Your task to perform on an android device: Go to notification settings Image 0: 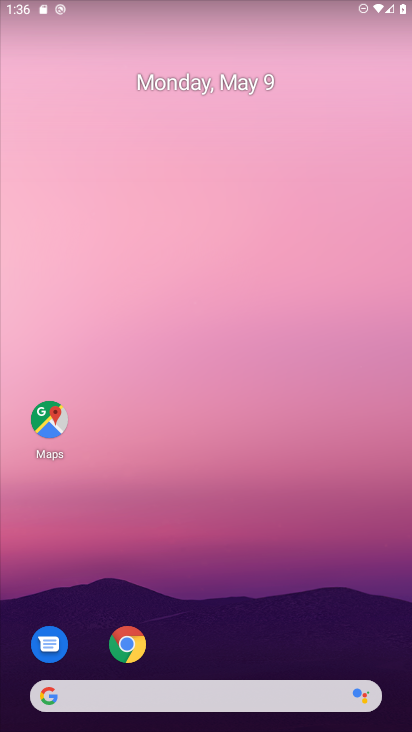
Step 0: drag from (296, 587) to (241, 181)
Your task to perform on an android device: Go to notification settings Image 1: 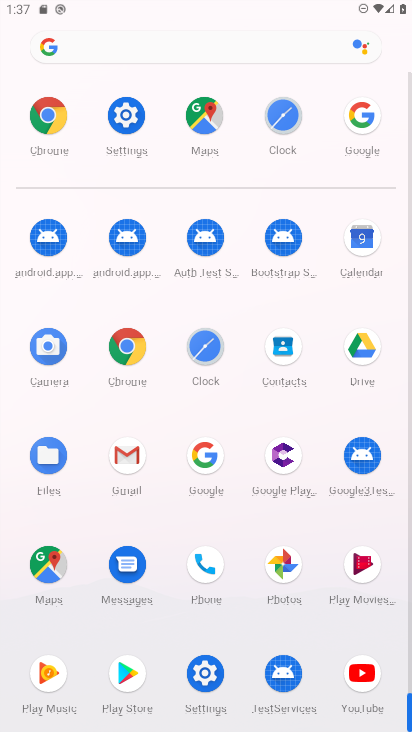
Step 1: click (200, 679)
Your task to perform on an android device: Go to notification settings Image 2: 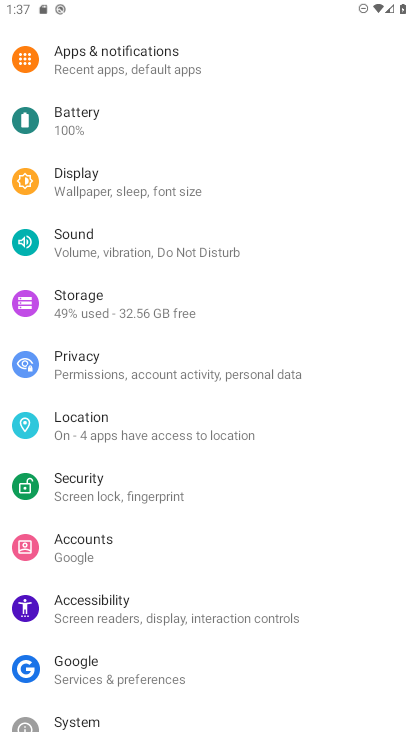
Step 2: click (168, 68)
Your task to perform on an android device: Go to notification settings Image 3: 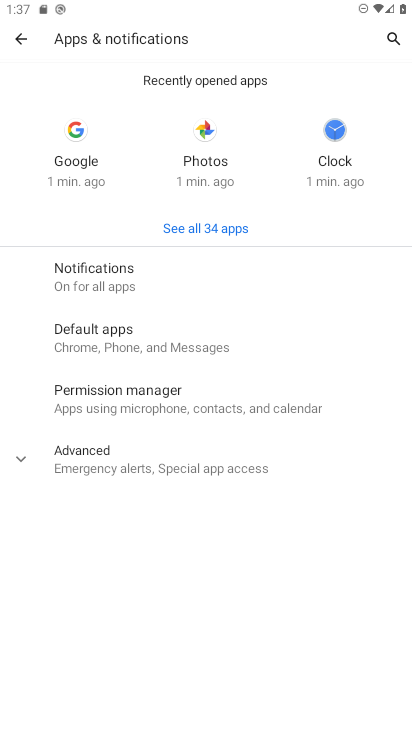
Step 3: click (90, 288)
Your task to perform on an android device: Go to notification settings Image 4: 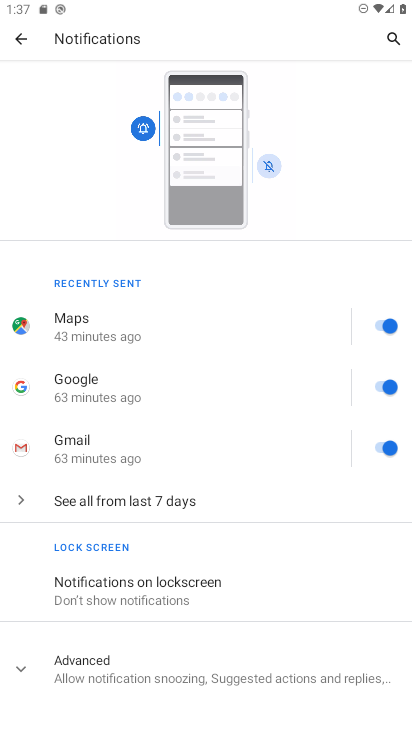
Step 4: drag from (132, 647) to (110, 530)
Your task to perform on an android device: Go to notification settings Image 5: 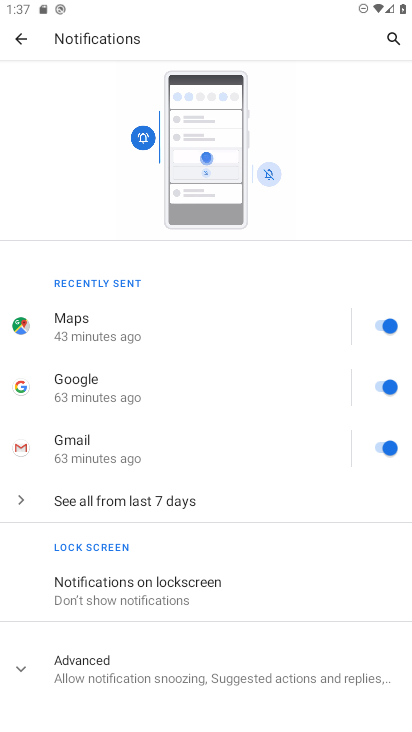
Step 5: click (185, 604)
Your task to perform on an android device: Go to notification settings Image 6: 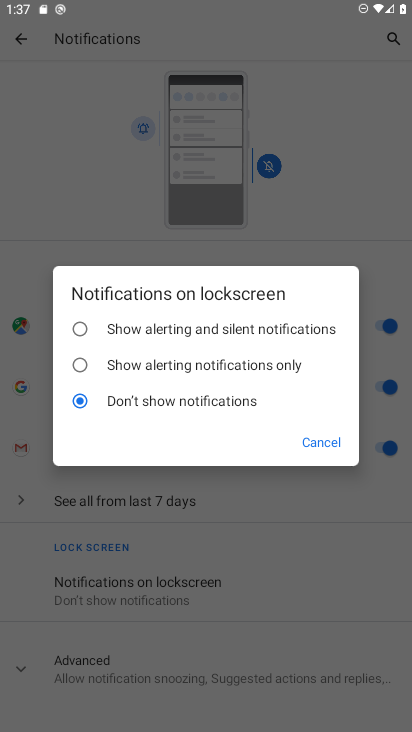
Step 6: click (340, 432)
Your task to perform on an android device: Go to notification settings Image 7: 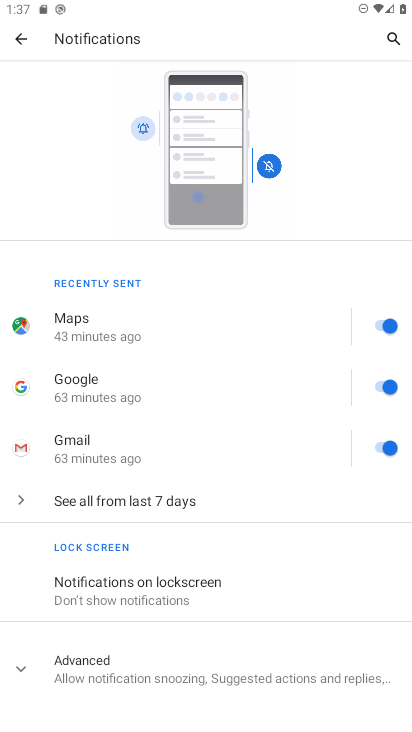
Step 7: task complete